Your task to perform on an android device: turn off notifications settings in the gmail app Image 0: 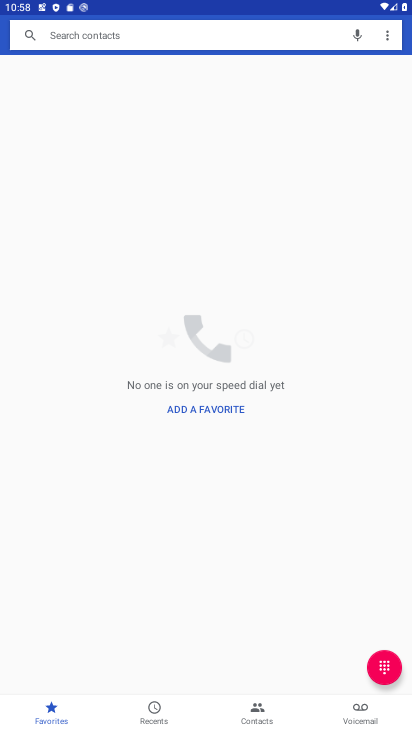
Step 0: press home button
Your task to perform on an android device: turn off notifications settings in the gmail app Image 1: 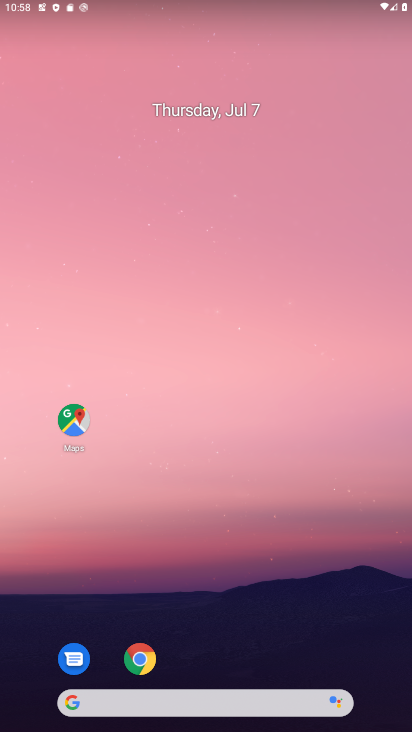
Step 1: drag from (214, 667) to (232, 58)
Your task to perform on an android device: turn off notifications settings in the gmail app Image 2: 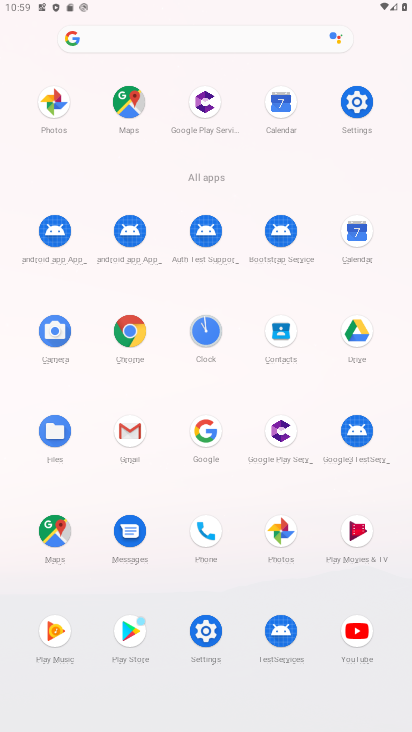
Step 2: click (129, 433)
Your task to perform on an android device: turn off notifications settings in the gmail app Image 3: 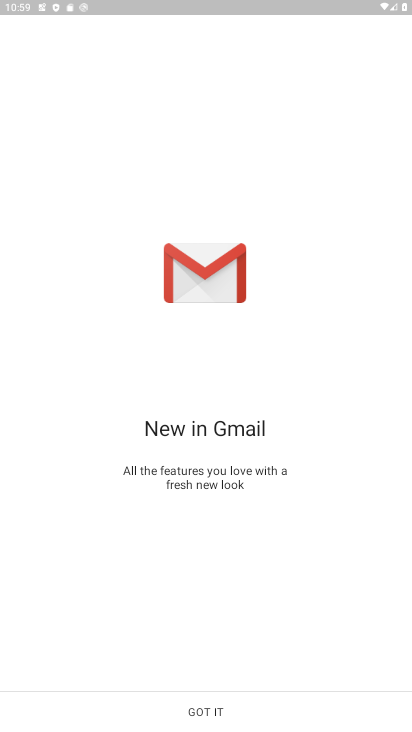
Step 3: click (207, 711)
Your task to perform on an android device: turn off notifications settings in the gmail app Image 4: 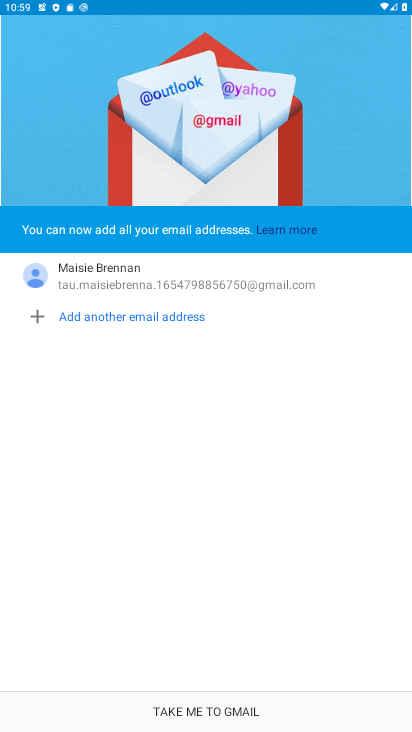
Step 4: click (215, 711)
Your task to perform on an android device: turn off notifications settings in the gmail app Image 5: 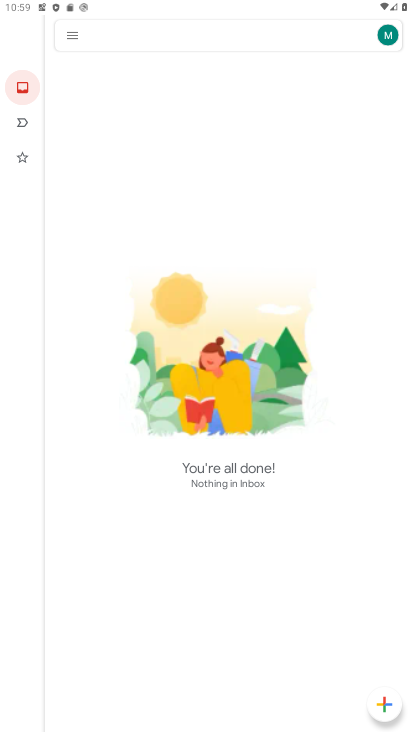
Step 5: click (72, 34)
Your task to perform on an android device: turn off notifications settings in the gmail app Image 6: 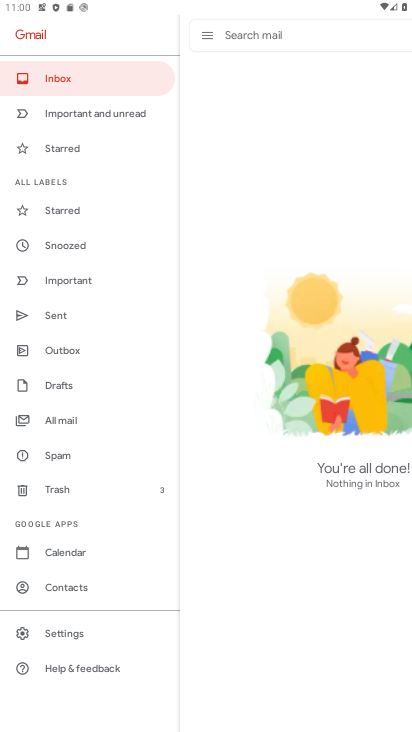
Step 6: click (72, 629)
Your task to perform on an android device: turn off notifications settings in the gmail app Image 7: 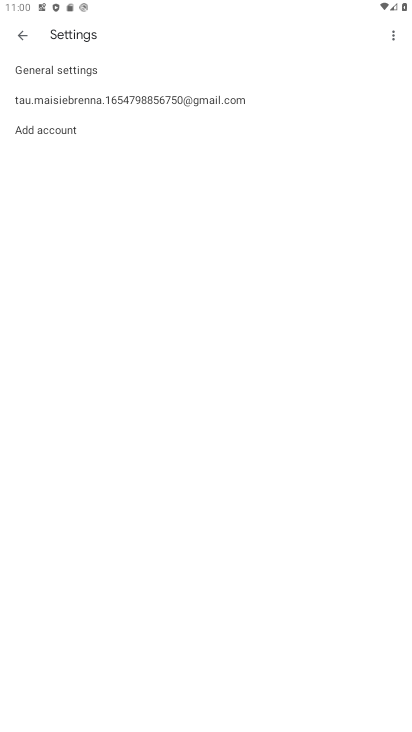
Step 7: click (47, 60)
Your task to perform on an android device: turn off notifications settings in the gmail app Image 8: 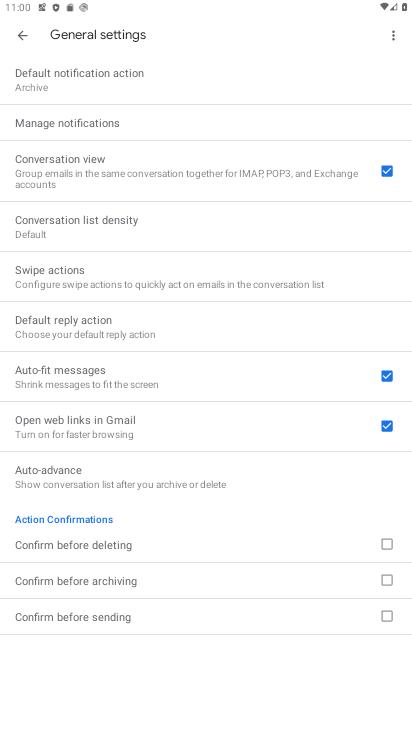
Step 8: click (103, 119)
Your task to perform on an android device: turn off notifications settings in the gmail app Image 9: 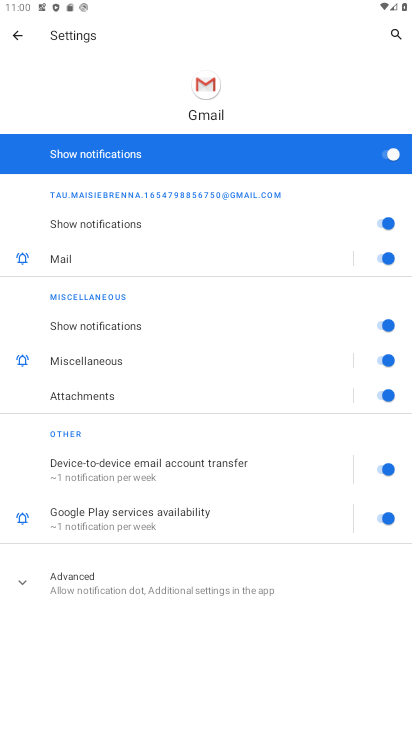
Step 9: click (386, 145)
Your task to perform on an android device: turn off notifications settings in the gmail app Image 10: 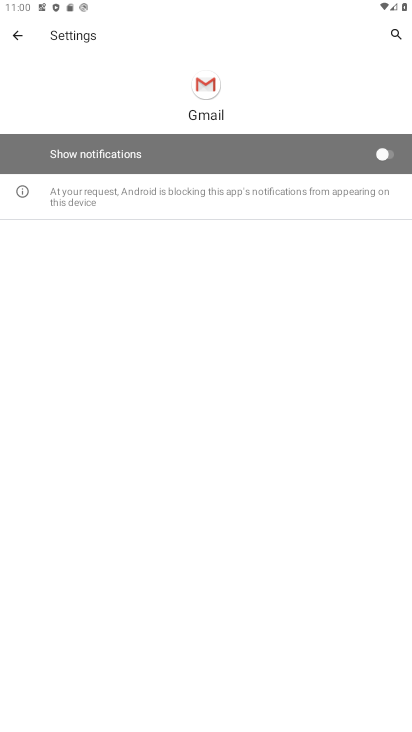
Step 10: task complete